Your task to perform on an android device: toggle improve location accuracy Image 0: 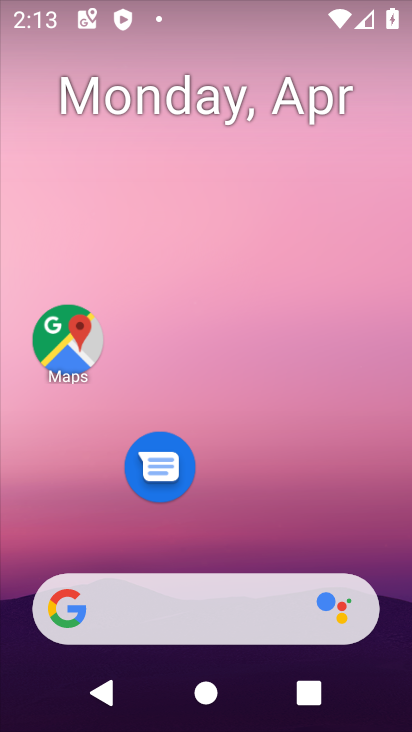
Step 0: drag from (260, 515) to (267, 48)
Your task to perform on an android device: toggle improve location accuracy Image 1: 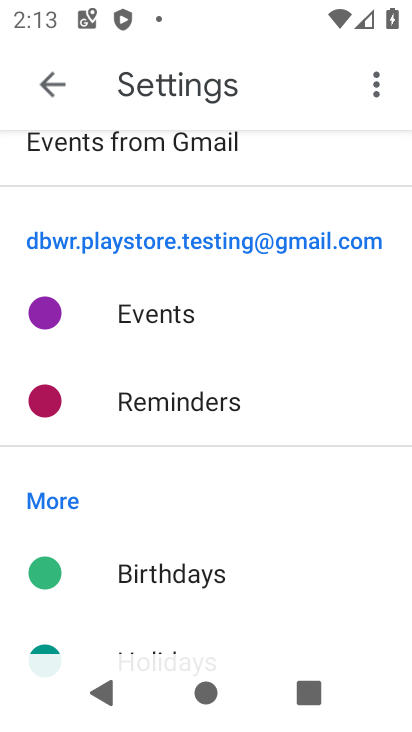
Step 1: press home button
Your task to perform on an android device: toggle improve location accuracy Image 2: 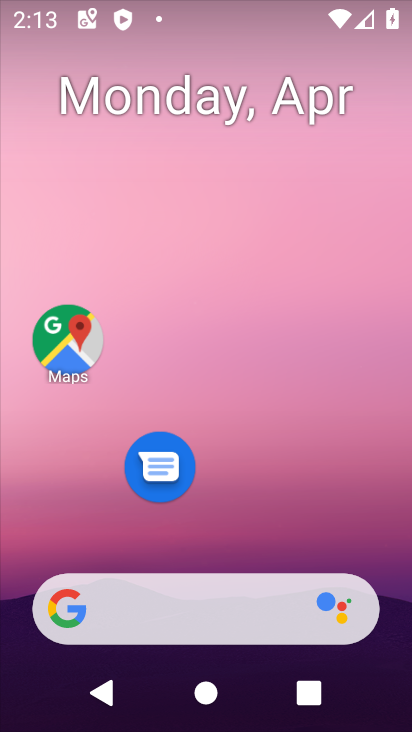
Step 2: drag from (310, 530) to (317, 99)
Your task to perform on an android device: toggle improve location accuracy Image 3: 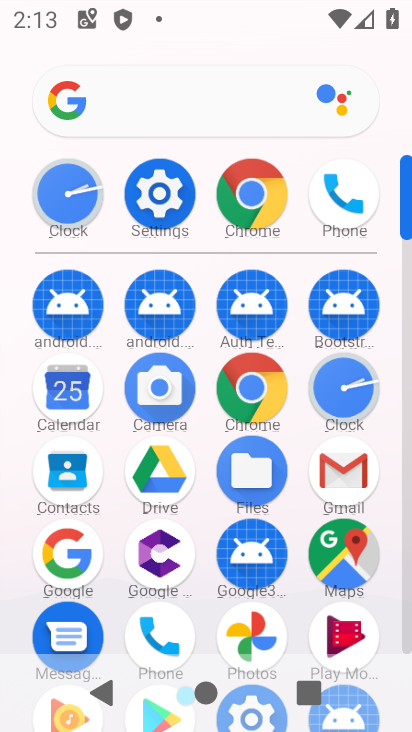
Step 3: click (167, 196)
Your task to perform on an android device: toggle improve location accuracy Image 4: 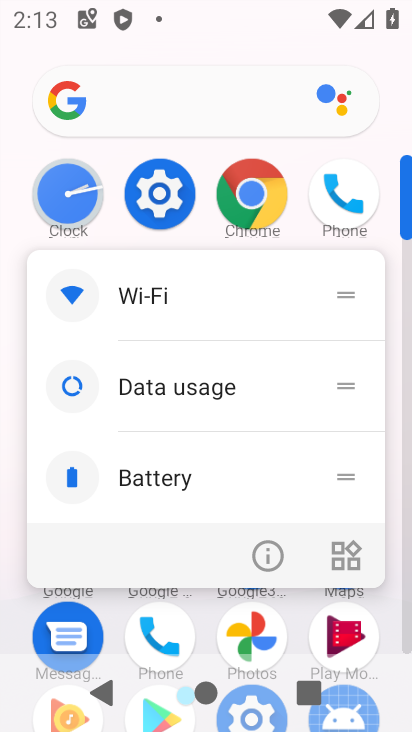
Step 4: click (167, 196)
Your task to perform on an android device: toggle improve location accuracy Image 5: 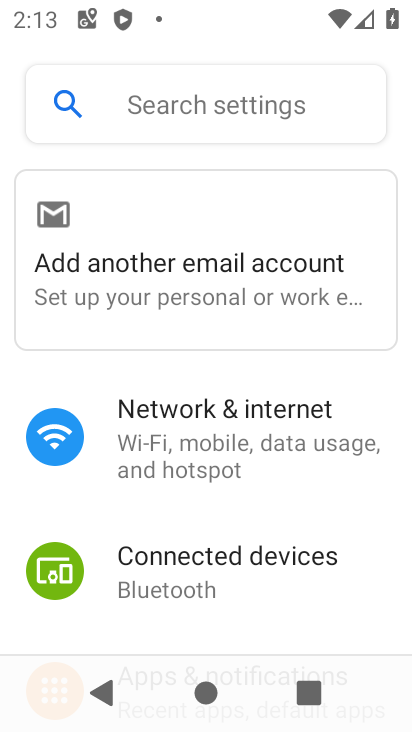
Step 5: drag from (248, 478) to (302, 202)
Your task to perform on an android device: toggle improve location accuracy Image 6: 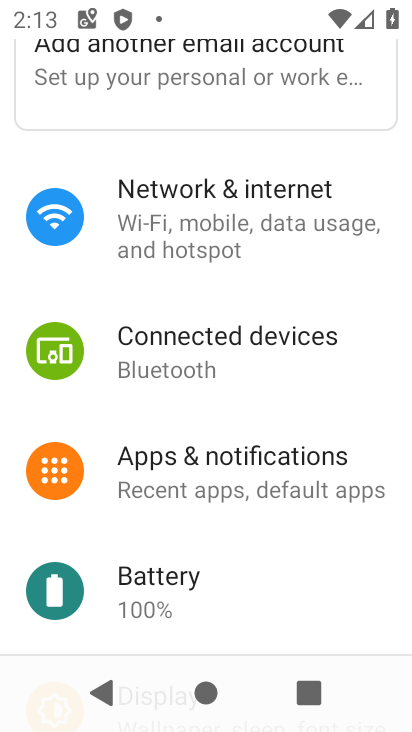
Step 6: drag from (280, 575) to (319, 201)
Your task to perform on an android device: toggle improve location accuracy Image 7: 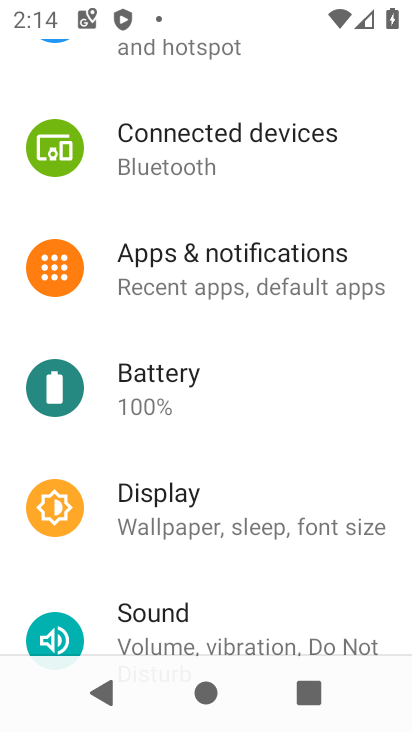
Step 7: drag from (233, 502) to (222, 107)
Your task to perform on an android device: toggle improve location accuracy Image 8: 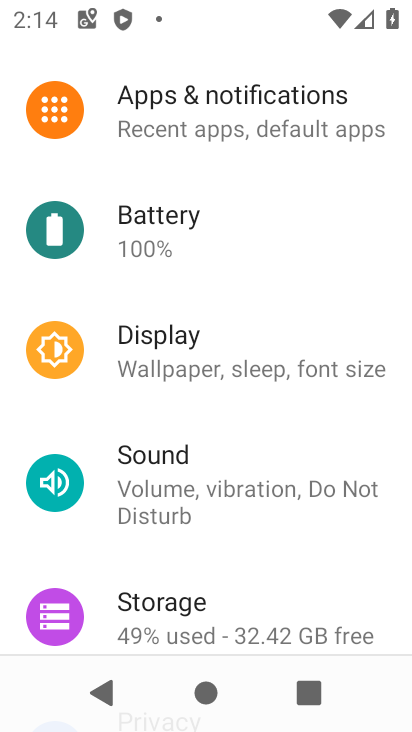
Step 8: drag from (266, 533) to (282, 58)
Your task to perform on an android device: toggle improve location accuracy Image 9: 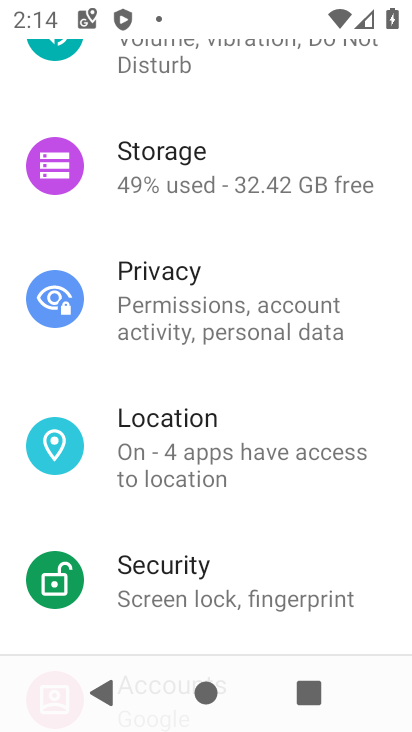
Step 9: click (206, 474)
Your task to perform on an android device: toggle improve location accuracy Image 10: 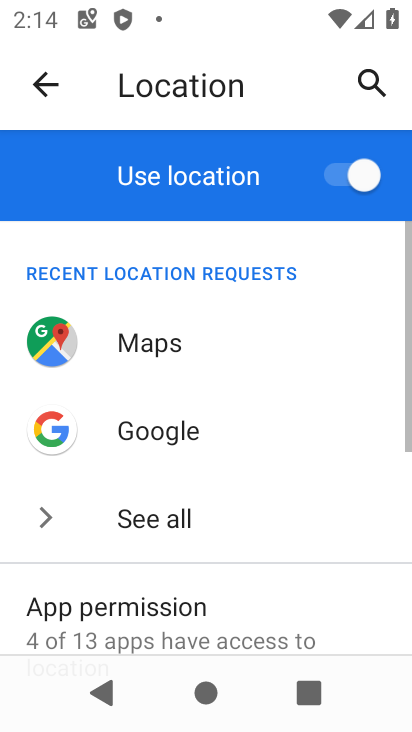
Step 10: drag from (234, 550) to (287, 147)
Your task to perform on an android device: toggle improve location accuracy Image 11: 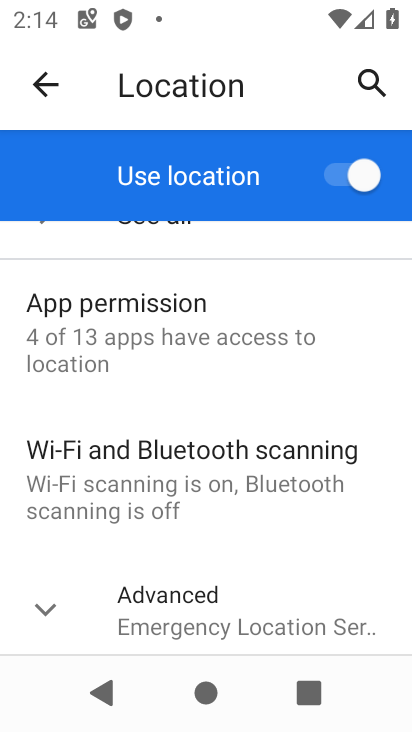
Step 11: click (193, 614)
Your task to perform on an android device: toggle improve location accuracy Image 12: 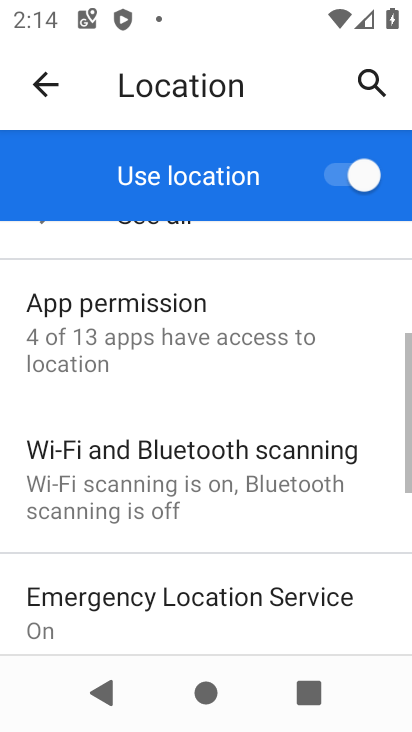
Step 12: drag from (191, 606) to (228, 157)
Your task to perform on an android device: toggle improve location accuracy Image 13: 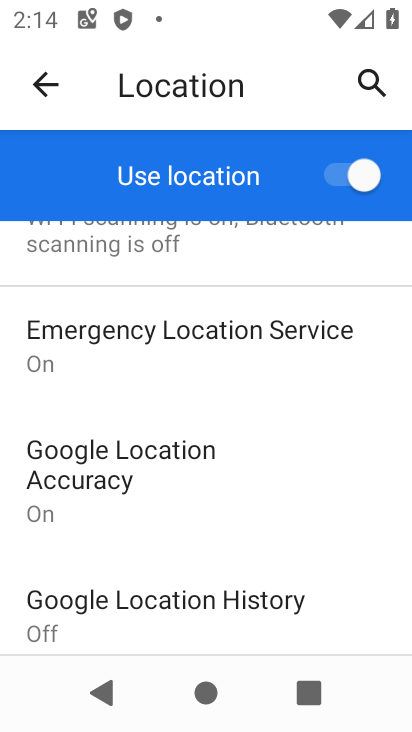
Step 13: click (175, 449)
Your task to perform on an android device: toggle improve location accuracy Image 14: 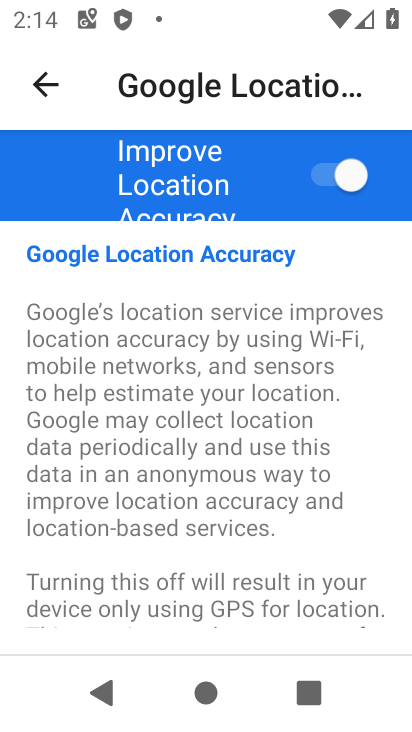
Step 14: click (290, 183)
Your task to perform on an android device: toggle improve location accuracy Image 15: 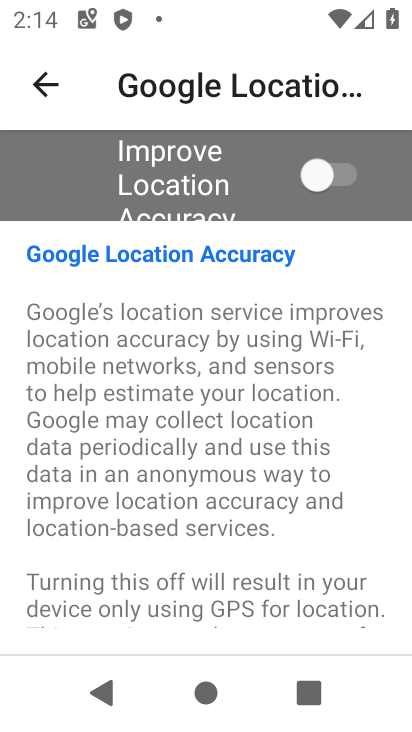
Step 15: task complete